Your task to perform on an android device: open app "Firefox Browser" (install if not already installed) Image 0: 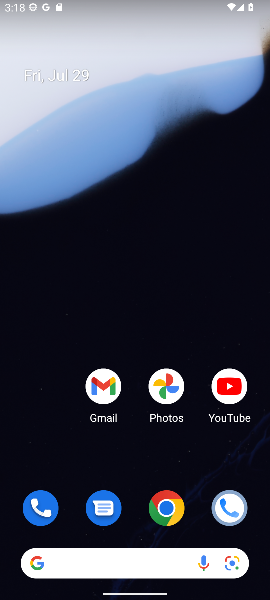
Step 0: drag from (186, 467) to (38, 47)
Your task to perform on an android device: open app "Firefox Browser" (install if not already installed) Image 1: 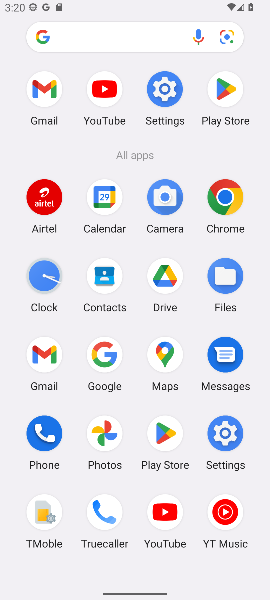
Step 1: click (164, 431)
Your task to perform on an android device: open app "Firefox Browser" (install if not already installed) Image 2: 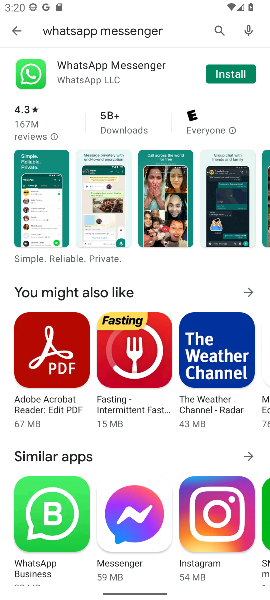
Step 2: press back button
Your task to perform on an android device: open app "Firefox Browser" (install if not already installed) Image 3: 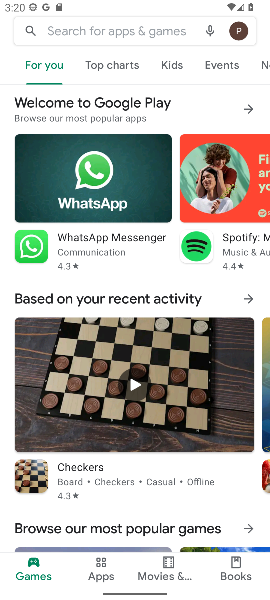
Step 3: click (88, 29)
Your task to perform on an android device: open app "Firefox Browser" (install if not already installed) Image 4: 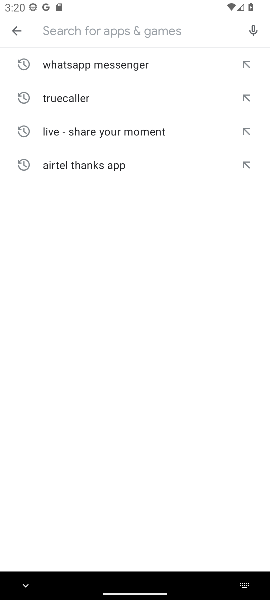
Step 4: type "Firefox Browser"
Your task to perform on an android device: open app "Firefox Browser" (install if not already installed) Image 5: 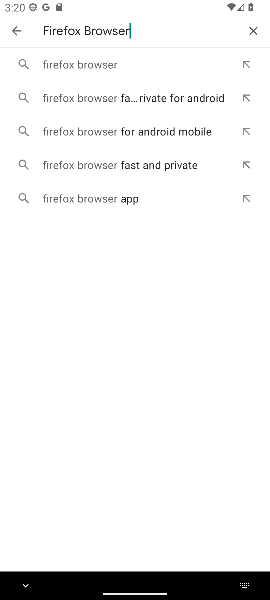
Step 5: click (78, 68)
Your task to perform on an android device: open app "Firefox Browser" (install if not already installed) Image 6: 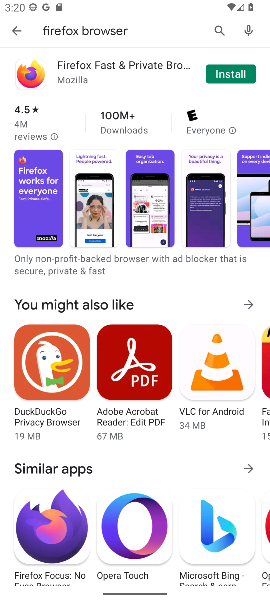
Step 6: task complete